Your task to perform on an android device: uninstall "Walmart Shopping & Grocery" Image 0: 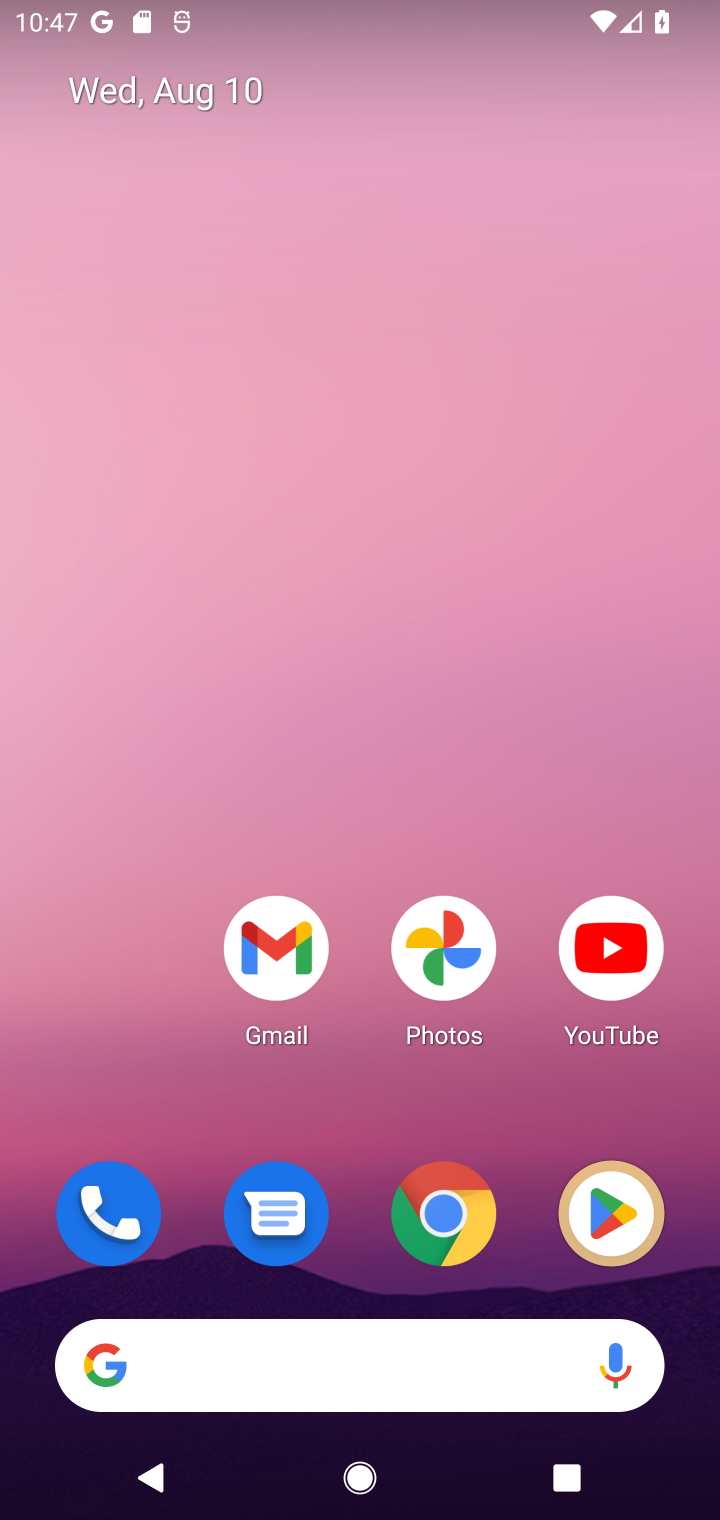
Step 0: press home button
Your task to perform on an android device: uninstall "Walmart Shopping & Grocery" Image 1: 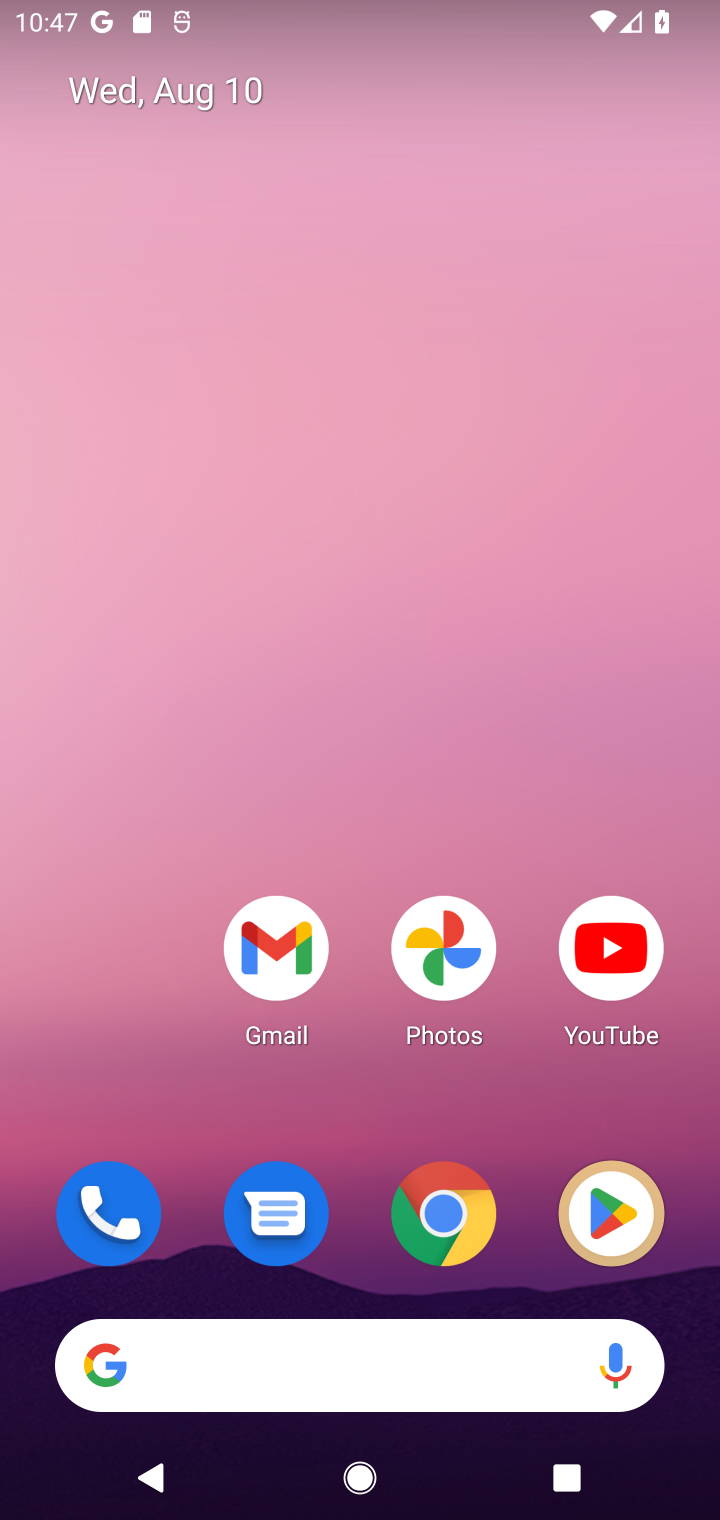
Step 1: drag from (248, 1386) to (377, 429)
Your task to perform on an android device: uninstall "Walmart Shopping & Grocery" Image 2: 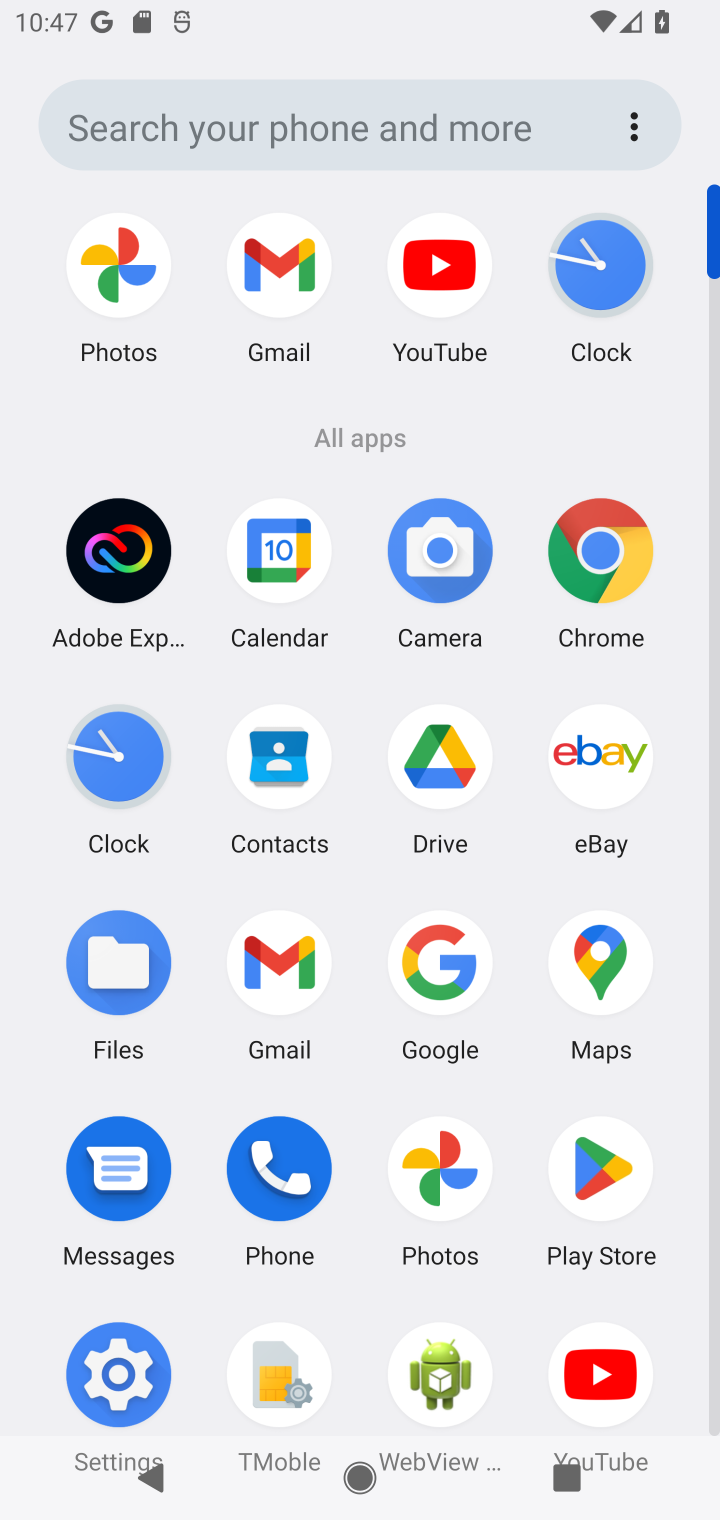
Step 2: click (597, 1167)
Your task to perform on an android device: uninstall "Walmart Shopping & Grocery" Image 3: 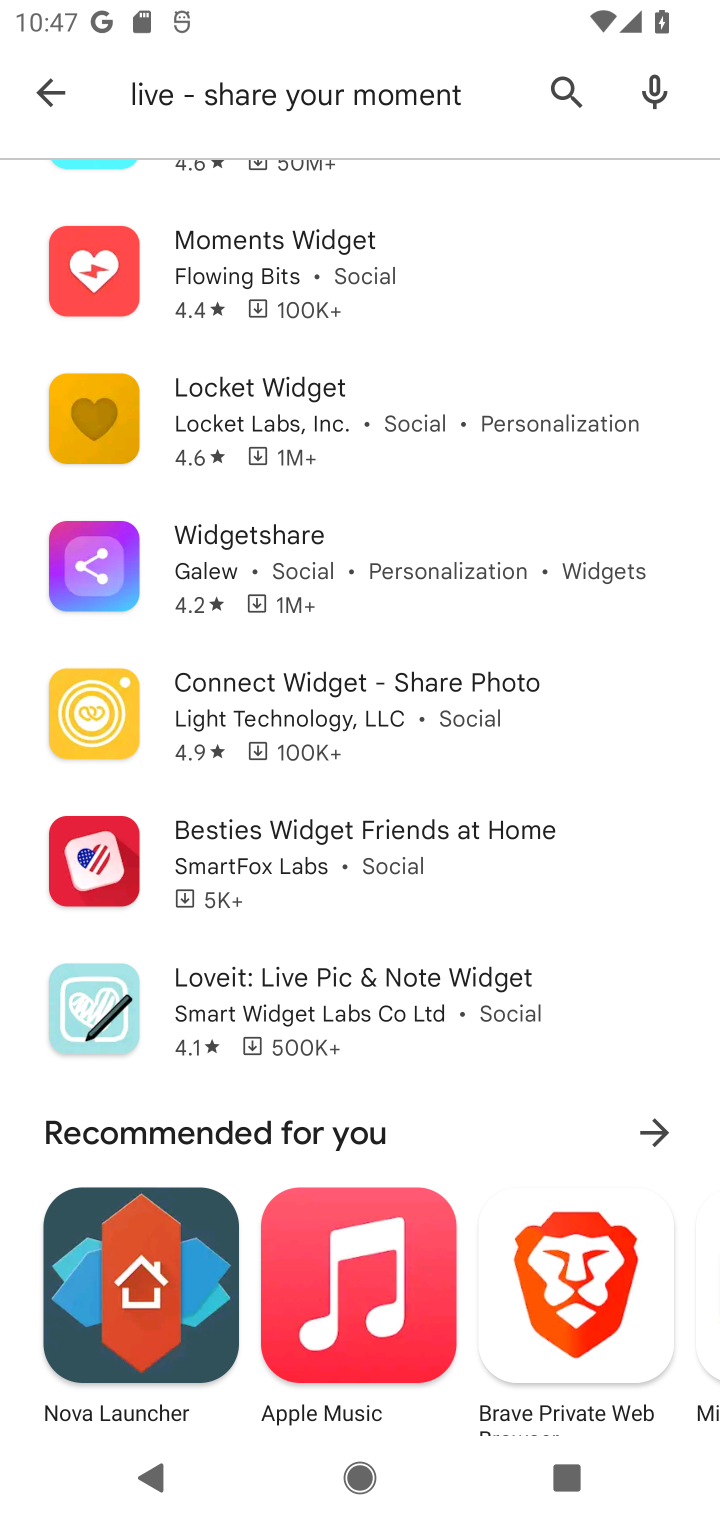
Step 3: press back button
Your task to perform on an android device: uninstall "Walmart Shopping & Grocery" Image 4: 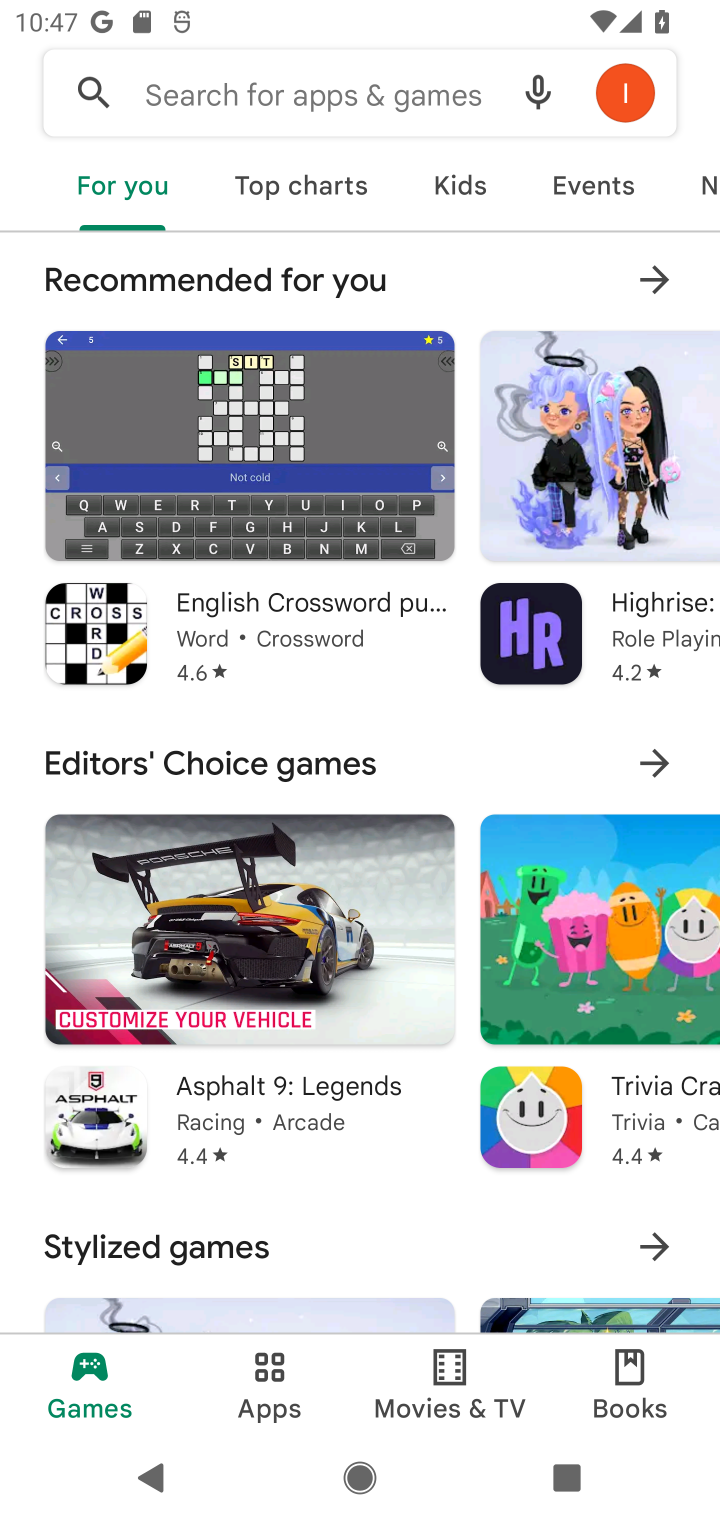
Step 4: click (413, 90)
Your task to perform on an android device: uninstall "Walmart Shopping & Grocery" Image 5: 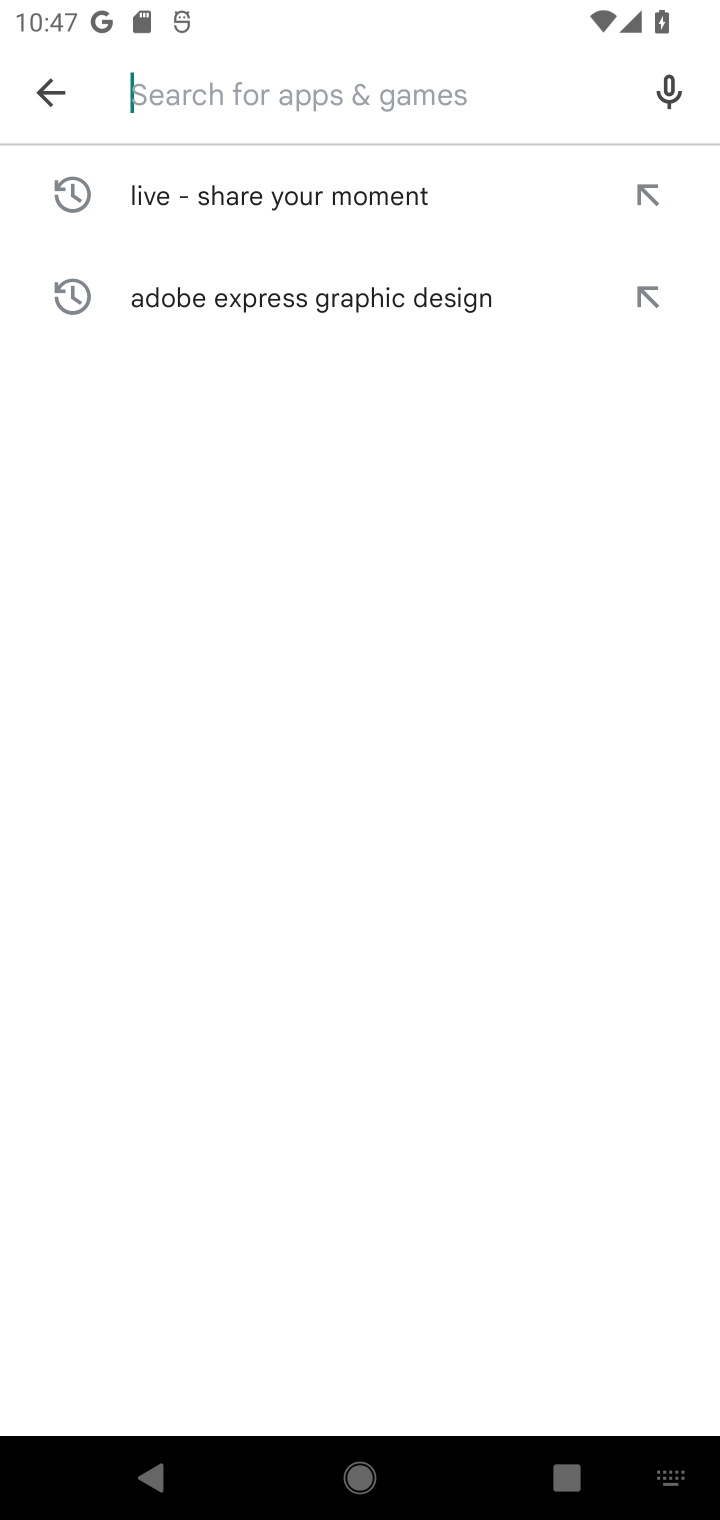
Step 5: type "Walmart Shopping & Grocery"
Your task to perform on an android device: uninstall "Walmart Shopping & Grocery" Image 6: 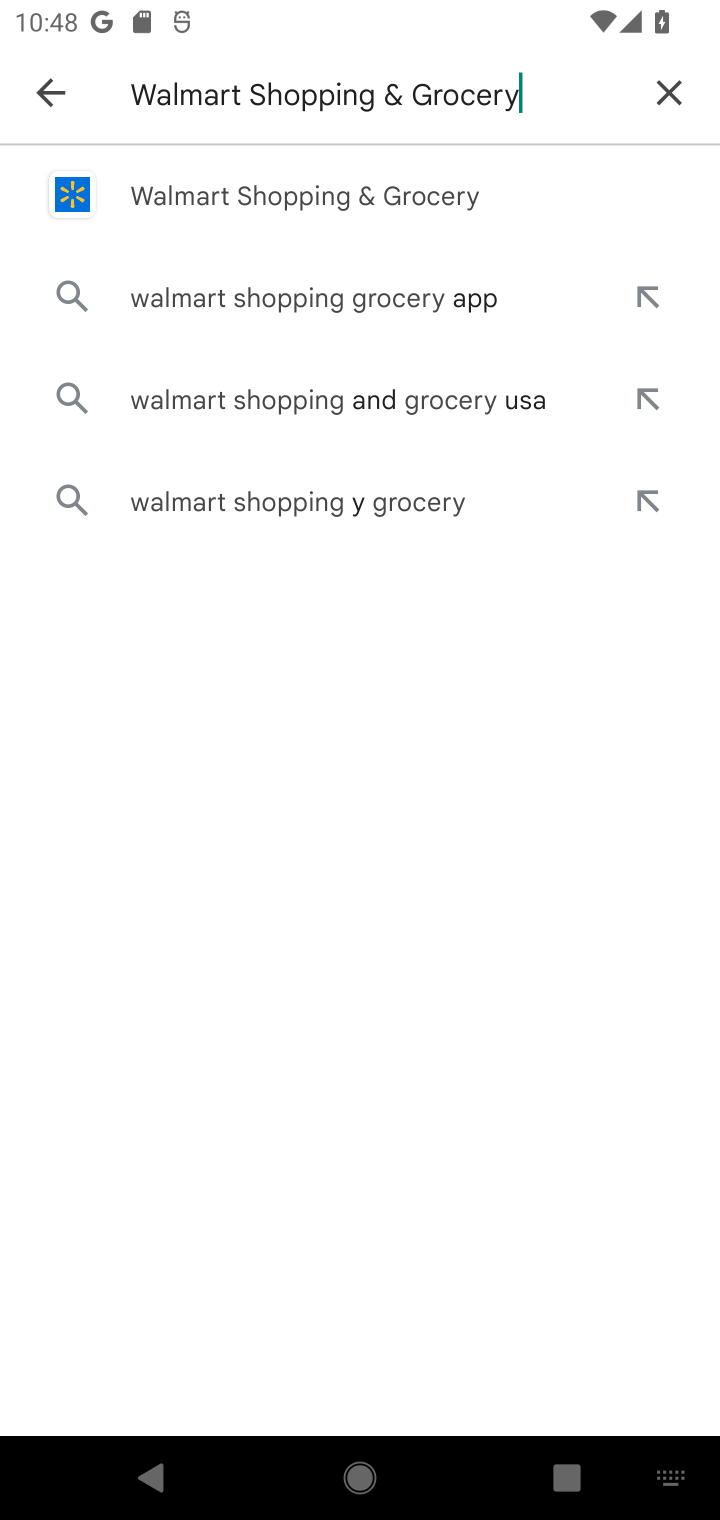
Step 6: click (185, 195)
Your task to perform on an android device: uninstall "Walmart Shopping & Grocery" Image 7: 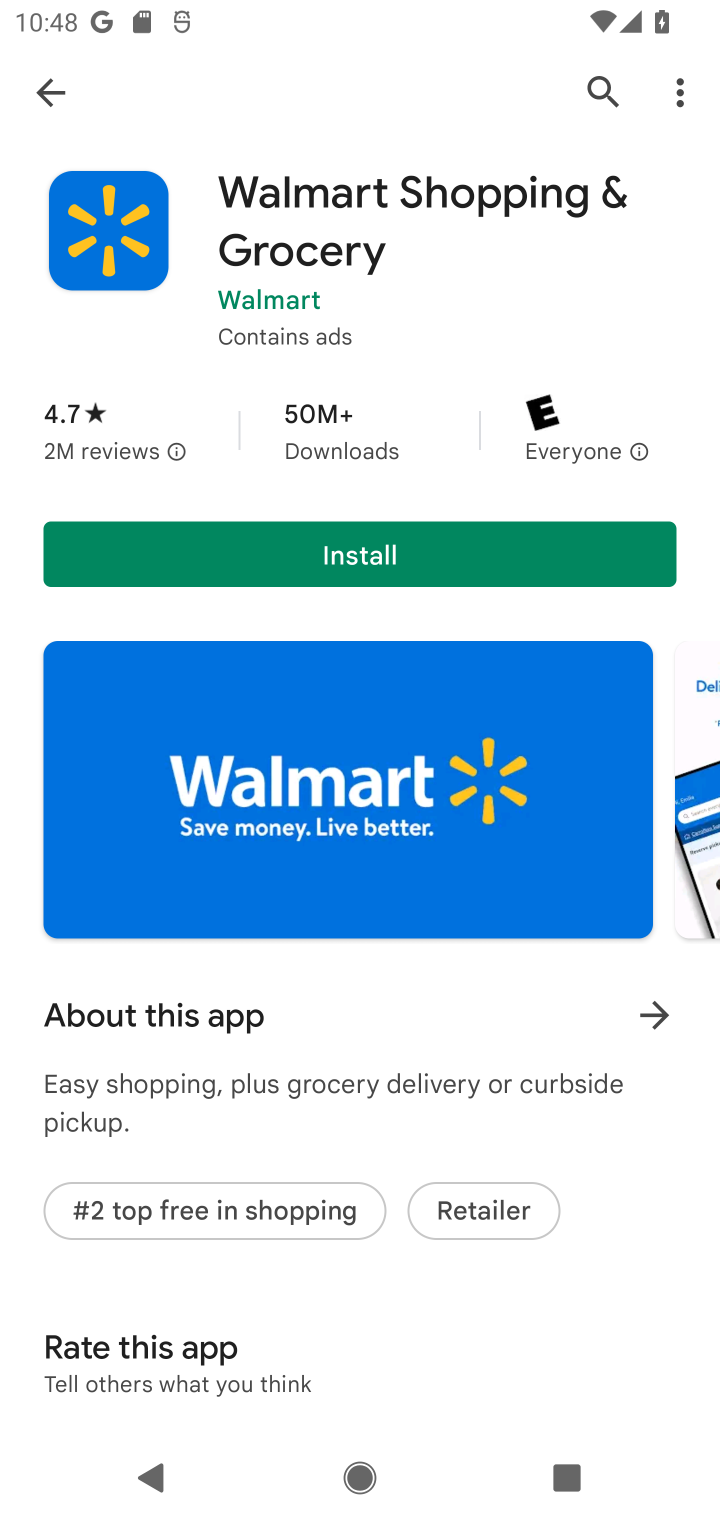
Step 7: task complete